Your task to perform on an android device: turn smart compose on in the gmail app Image 0: 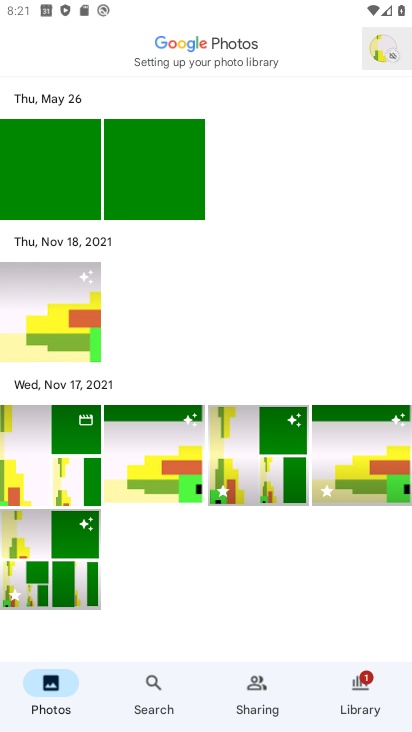
Step 0: press home button
Your task to perform on an android device: turn smart compose on in the gmail app Image 1: 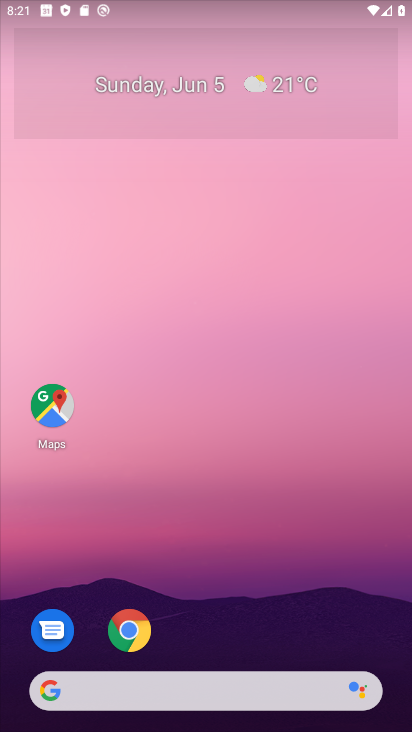
Step 1: drag from (205, 645) to (180, 233)
Your task to perform on an android device: turn smart compose on in the gmail app Image 2: 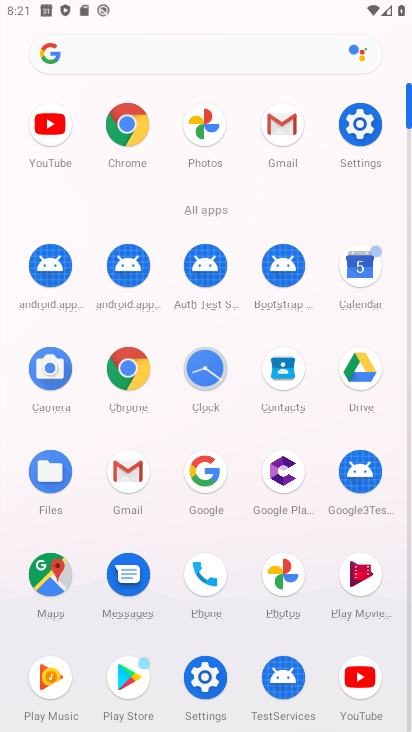
Step 2: click (281, 138)
Your task to perform on an android device: turn smart compose on in the gmail app Image 3: 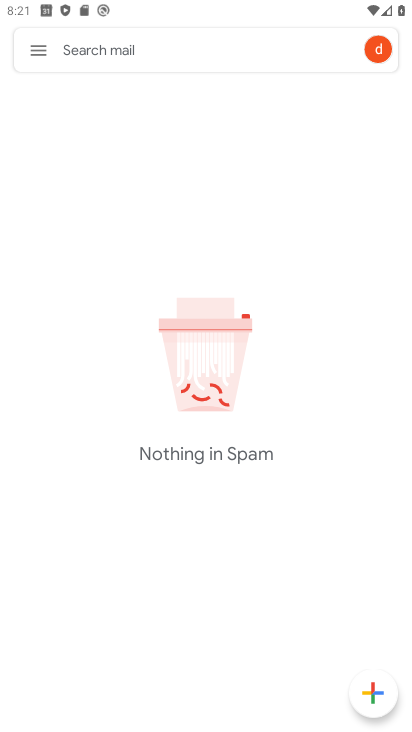
Step 3: click (37, 54)
Your task to perform on an android device: turn smart compose on in the gmail app Image 4: 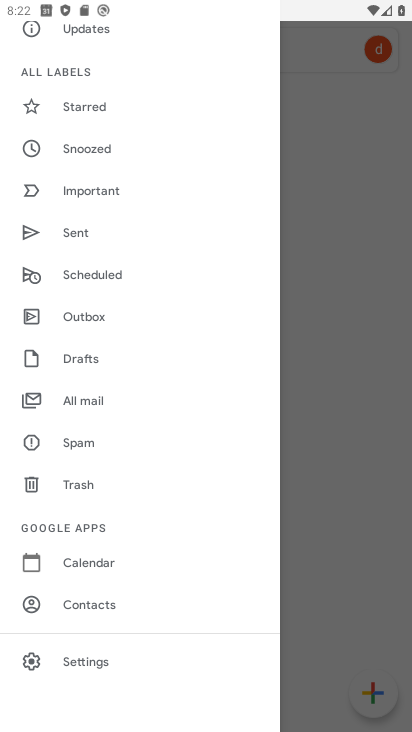
Step 4: click (100, 654)
Your task to perform on an android device: turn smart compose on in the gmail app Image 5: 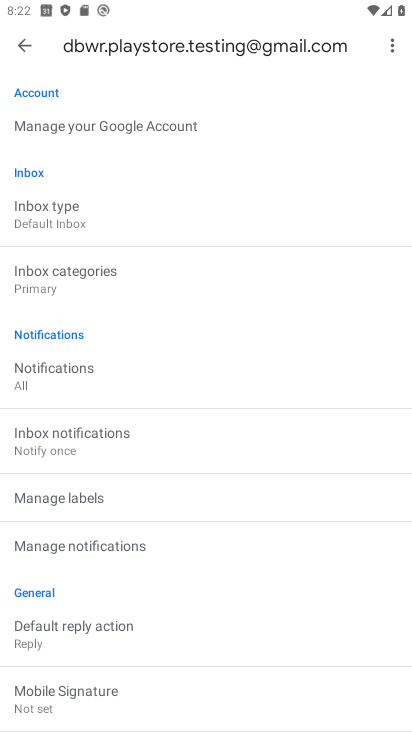
Step 5: task complete